Your task to perform on an android device: change timer sound Image 0: 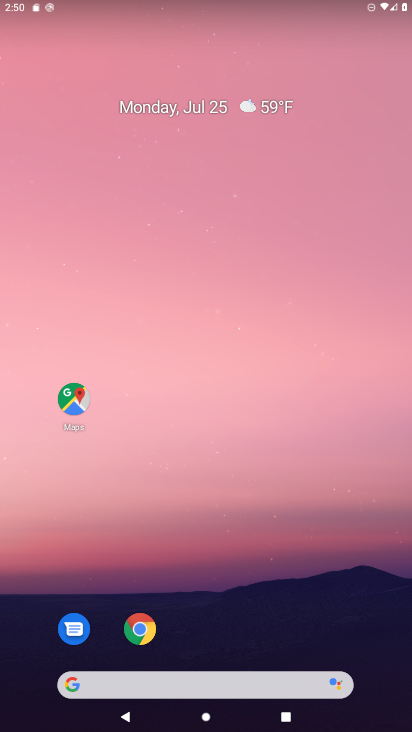
Step 0: drag from (325, 610) to (232, 38)
Your task to perform on an android device: change timer sound Image 1: 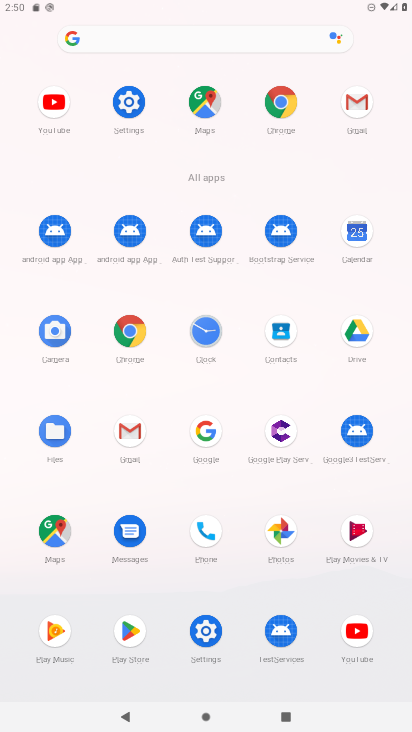
Step 1: click (211, 320)
Your task to perform on an android device: change timer sound Image 2: 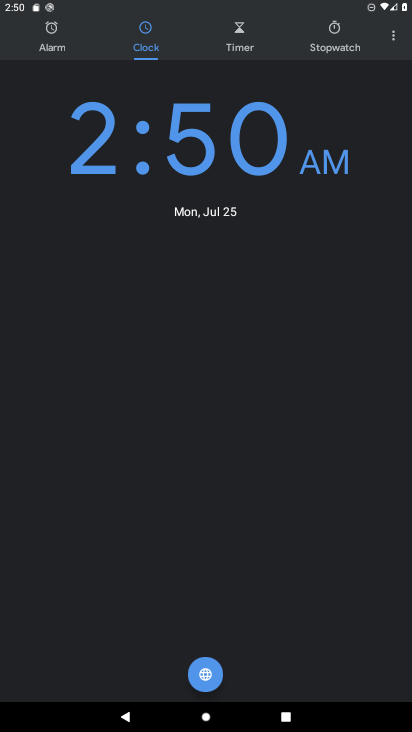
Step 2: click (400, 31)
Your task to perform on an android device: change timer sound Image 3: 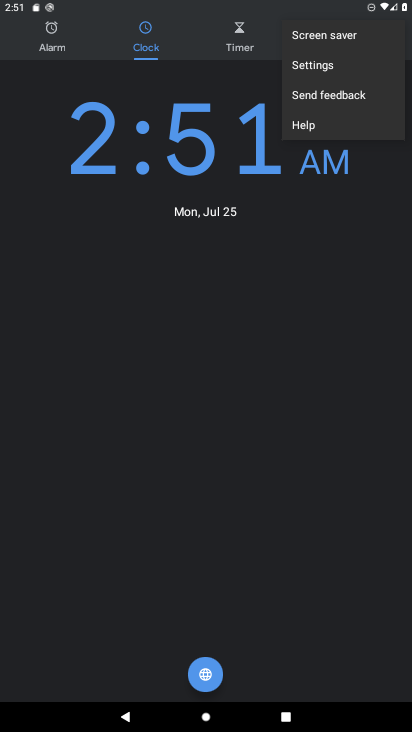
Step 3: click (323, 62)
Your task to perform on an android device: change timer sound Image 4: 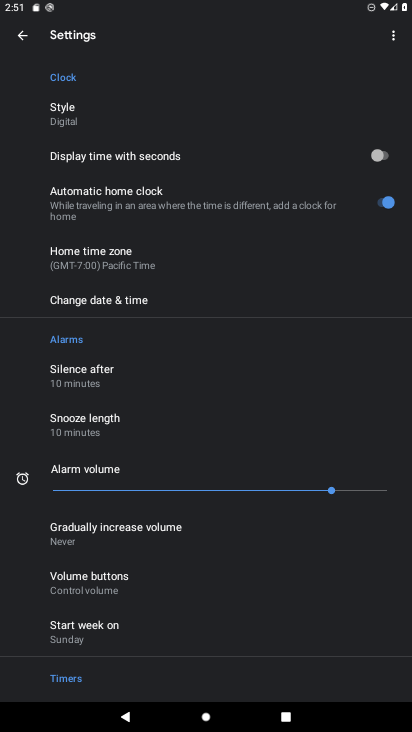
Step 4: drag from (160, 627) to (74, 400)
Your task to perform on an android device: change timer sound Image 5: 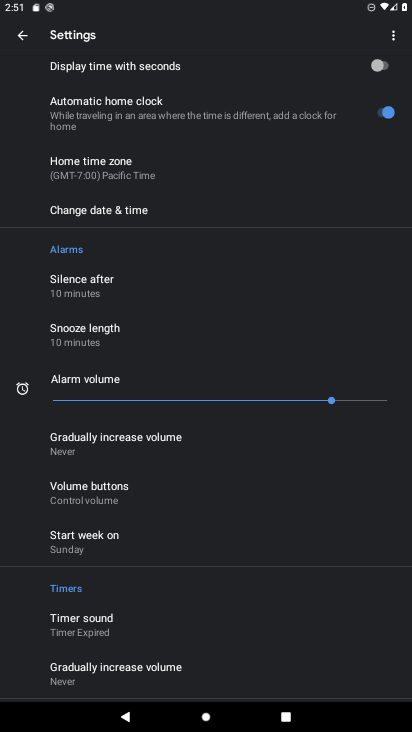
Step 5: click (175, 627)
Your task to perform on an android device: change timer sound Image 6: 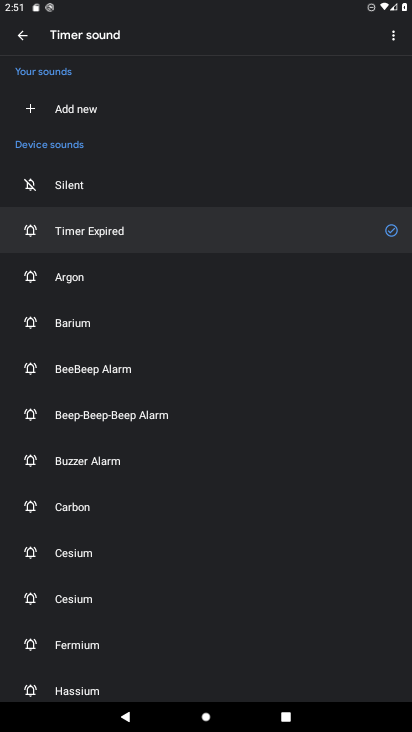
Step 6: click (76, 549)
Your task to perform on an android device: change timer sound Image 7: 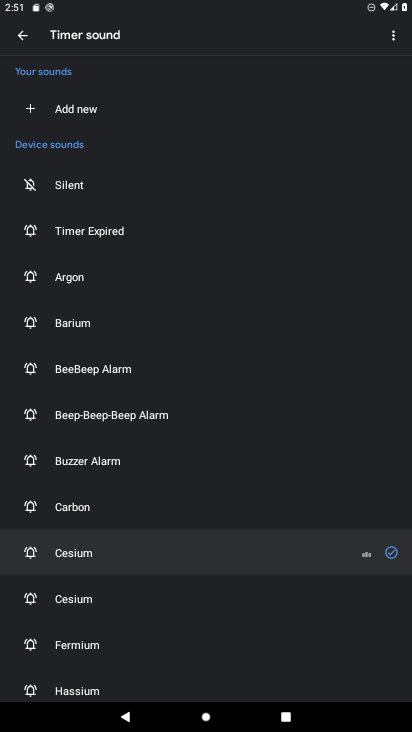
Step 7: task complete